Your task to perform on an android device: When is my next appointment? Image 0: 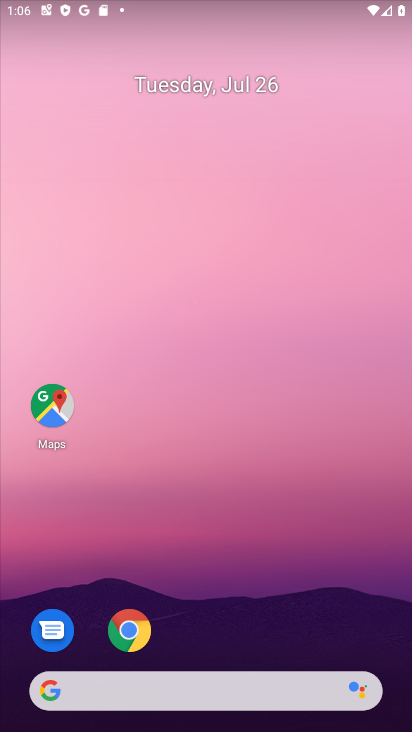
Step 0: drag from (196, 626) to (294, 52)
Your task to perform on an android device: When is my next appointment? Image 1: 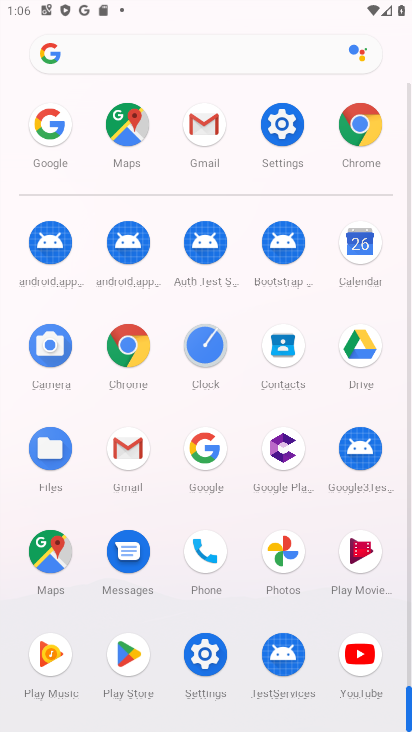
Step 1: click (355, 236)
Your task to perform on an android device: When is my next appointment? Image 2: 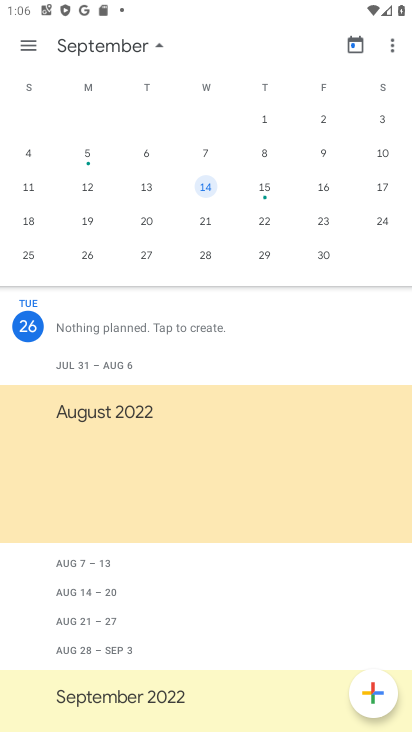
Step 2: click (197, 191)
Your task to perform on an android device: When is my next appointment? Image 3: 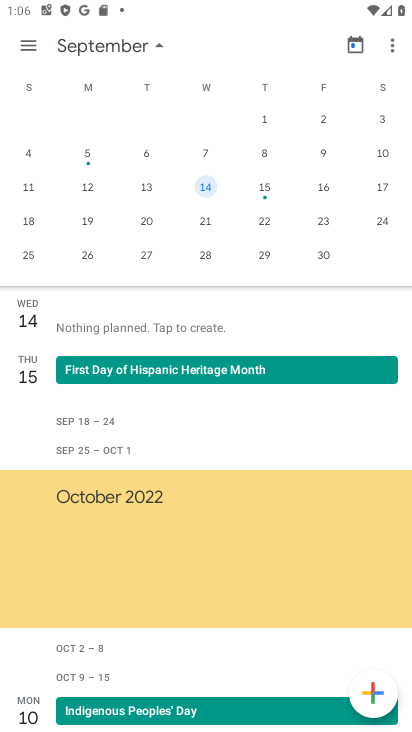
Step 3: task complete